Your task to perform on an android device: uninstall "McDonald's" Image 0: 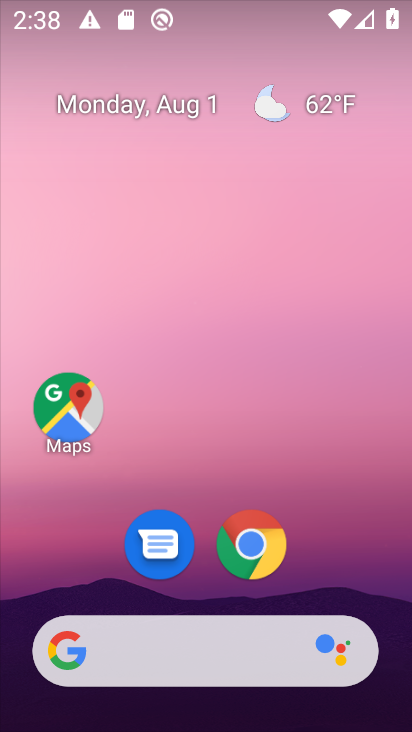
Step 0: drag from (333, 370) to (242, 64)
Your task to perform on an android device: uninstall "McDonald's" Image 1: 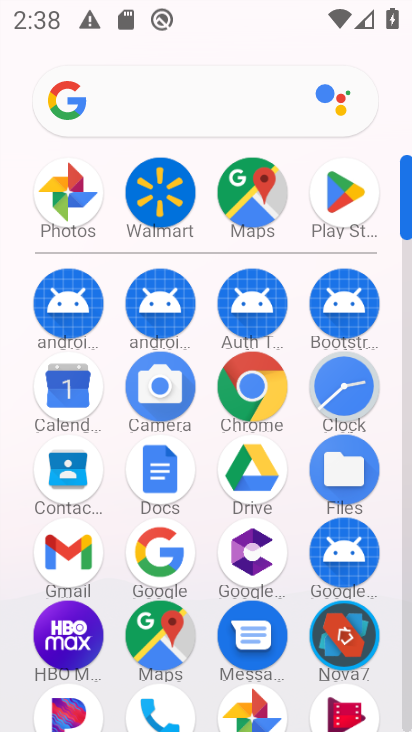
Step 1: click (353, 208)
Your task to perform on an android device: uninstall "McDonald's" Image 2: 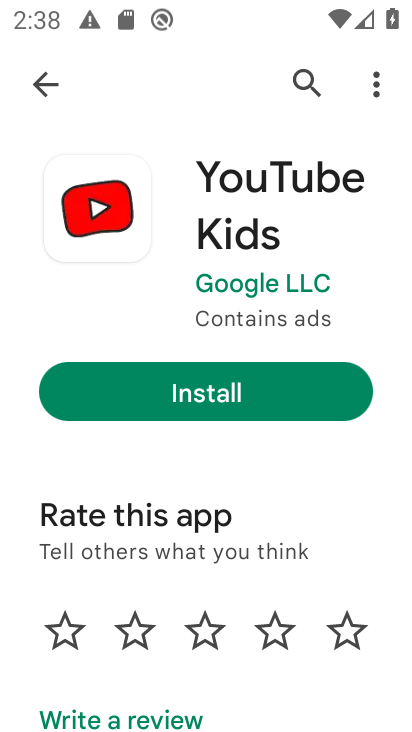
Step 2: press back button
Your task to perform on an android device: uninstall "McDonald's" Image 3: 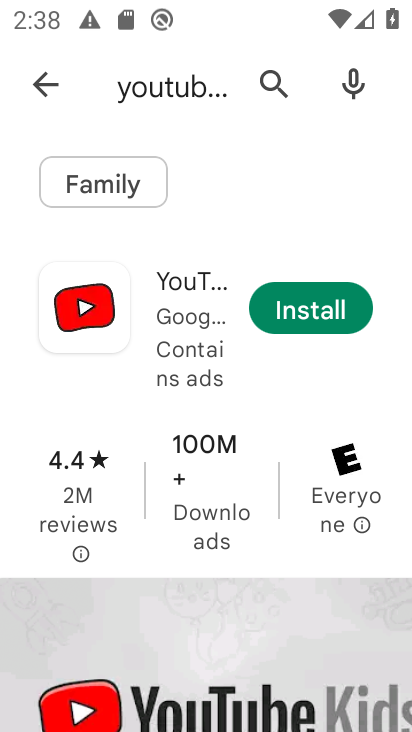
Step 3: press back button
Your task to perform on an android device: uninstall "McDonald's" Image 4: 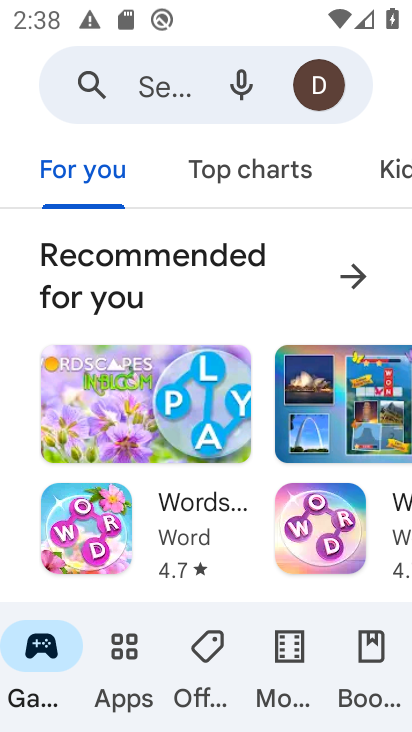
Step 4: click (143, 77)
Your task to perform on an android device: uninstall "McDonald's" Image 5: 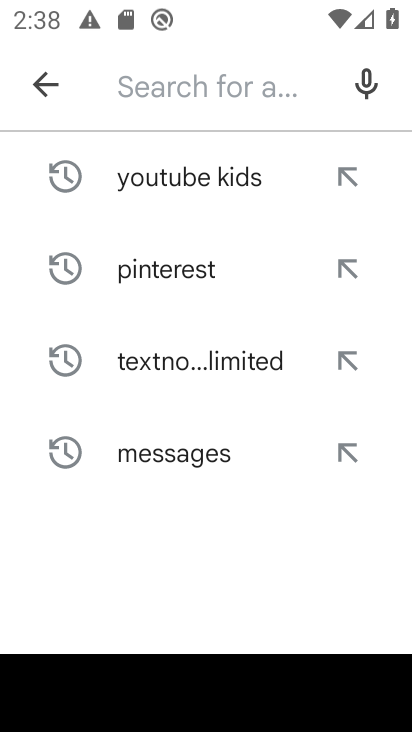
Step 5: type "McDonald's"
Your task to perform on an android device: uninstall "McDonald's" Image 6: 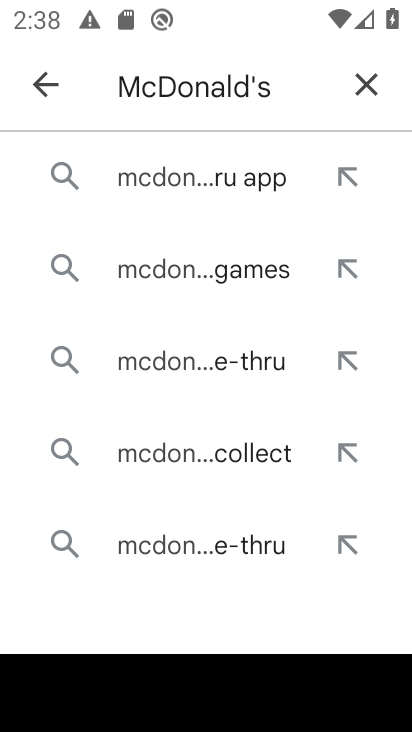
Step 6: click (183, 187)
Your task to perform on an android device: uninstall "McDonald's" Image 7: 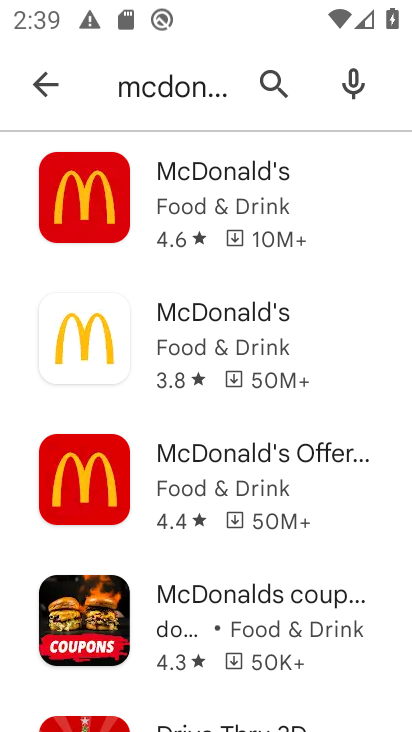
Step 7: task complete